Your task to perform on an android device: Open the stopwatch Image 0: 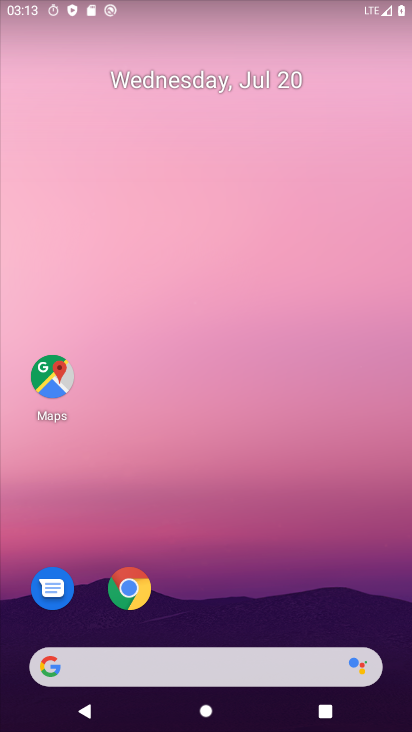
Step 0: drag from (207, 243) to (280, 5)
Your task to perform on an android device: Open the stopwatch Image 1: 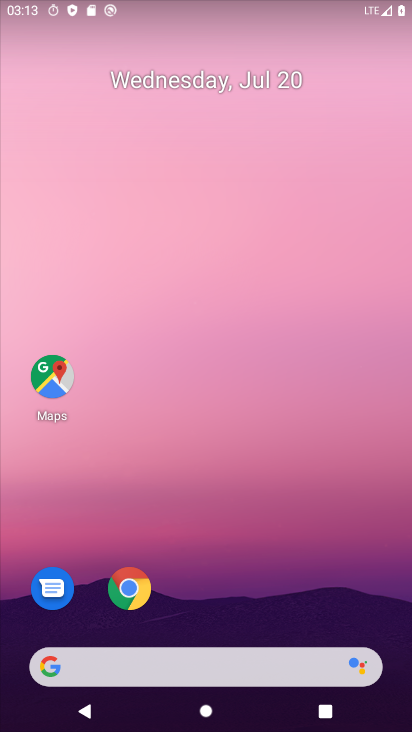
Step 1: drag from (147, 603) to (191, 309)
Your task to perform on an android device: Open the stopwatch Image 2: 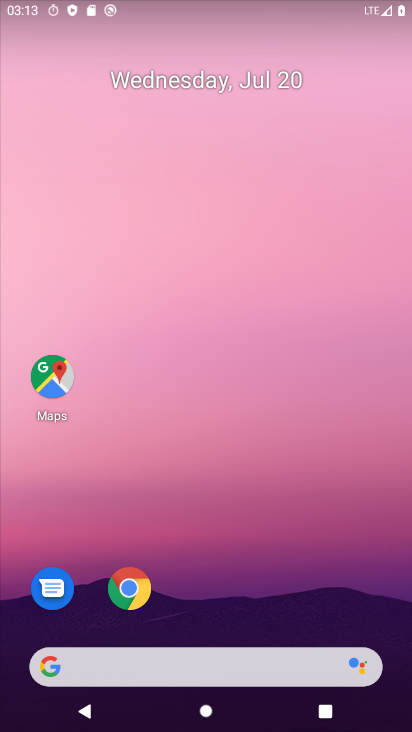
Step 2: drag from (197, 621) to (380, 45)
Your task to perform on an android device: Open the stopwatch Image 3: 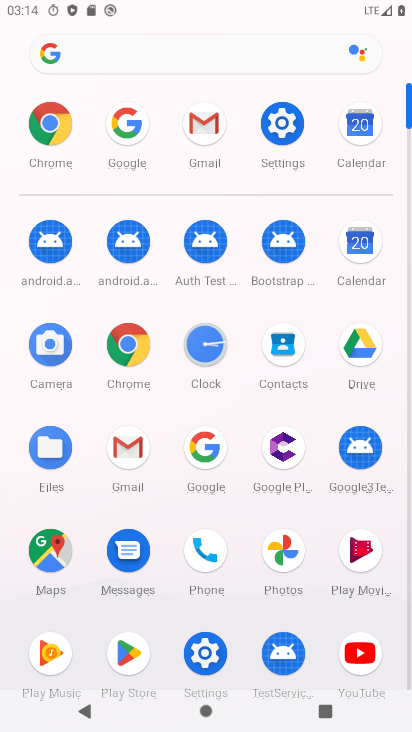
Step 3: click (202, 347)
Your task to perform on an android device: Open the stopwatch Image 4: 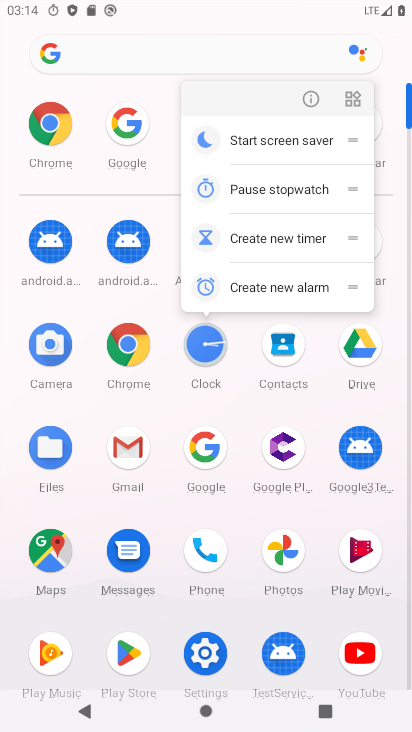
Step 4: click (297, 114)
Your task to perform on an android device: Open the stopwatch Image 5: 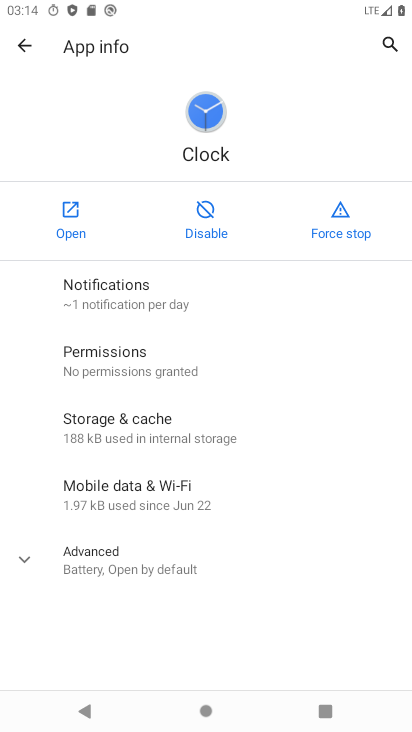
Step 5: click (65, 241)
Your task to perform on an android device: Open the stopwatch Image 6: 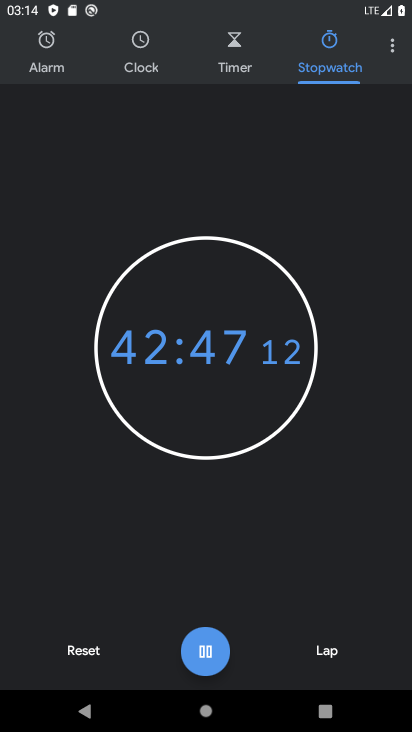
Step 6: click (322, 46)
Your task to perform on an android device: Open the stopwatch Image 7: 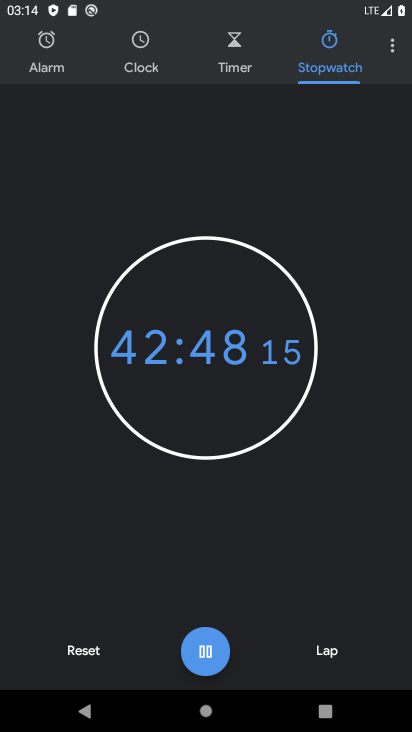
Step 7: click (83, 630)
Your task to perform on an android device: Open the stopwatch Image 8: 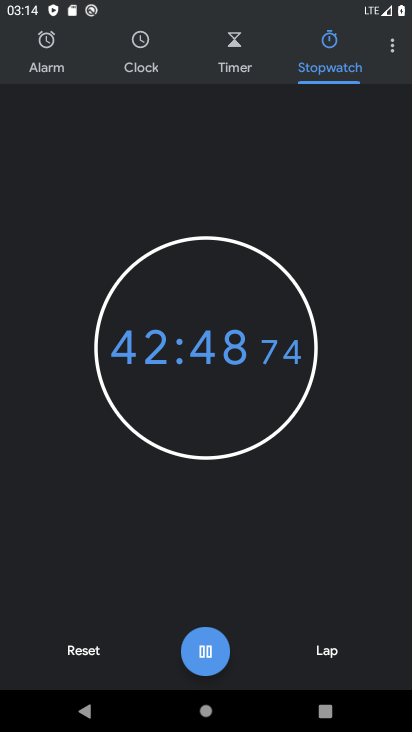
Step 8: click (88, 647)
Your task to perform on an android device: Open the stopwatch Image 9: 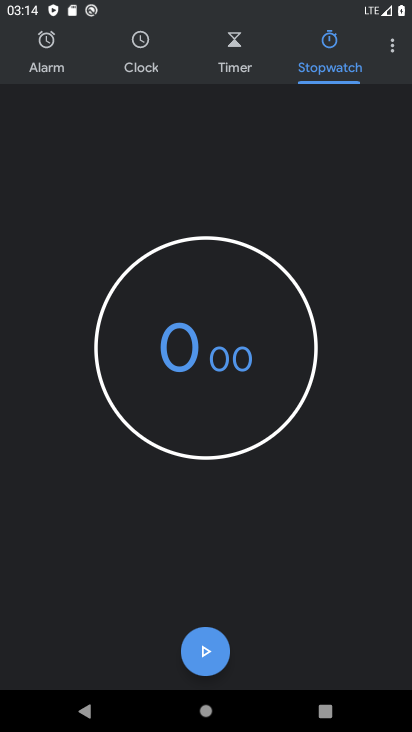
Step 9: click (219, 646)
Your task to perform on an android device: Open the stopwatch Image 10: 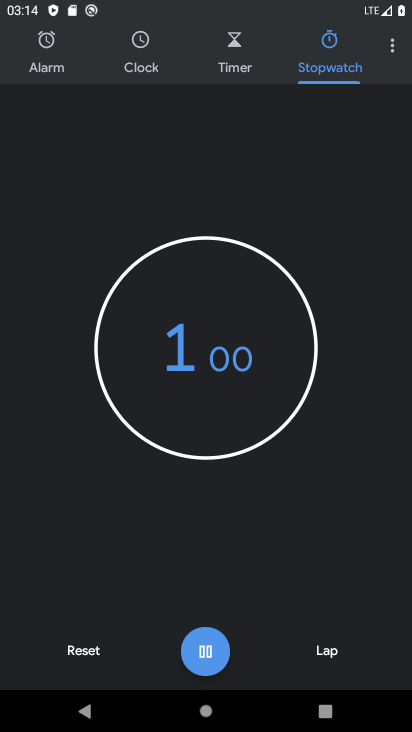
Step 10: task complete